Your task to perform on an android device: change notifications settings Image 0: 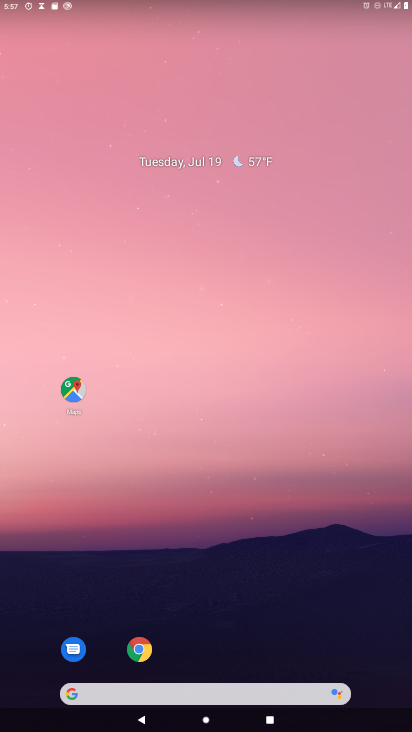
Step 0: drag from (225, 474) to (226, 201)
Your task to perform on an android device: change notifications settings Image 1: 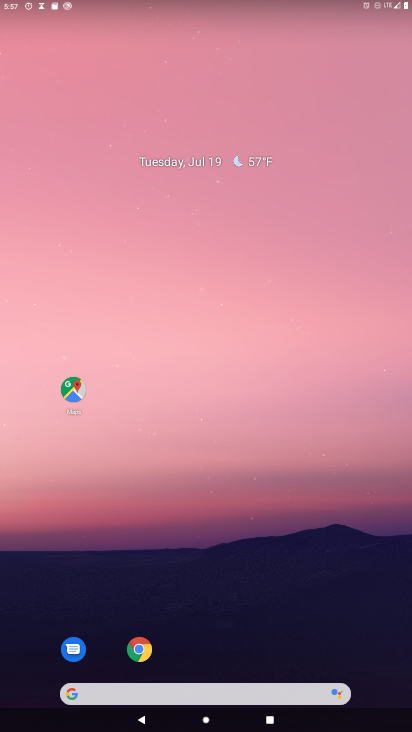
Step 1: drag from (212, 475) to (293, 103)
Your task to perform on an android device: change notifications settings Image 2: 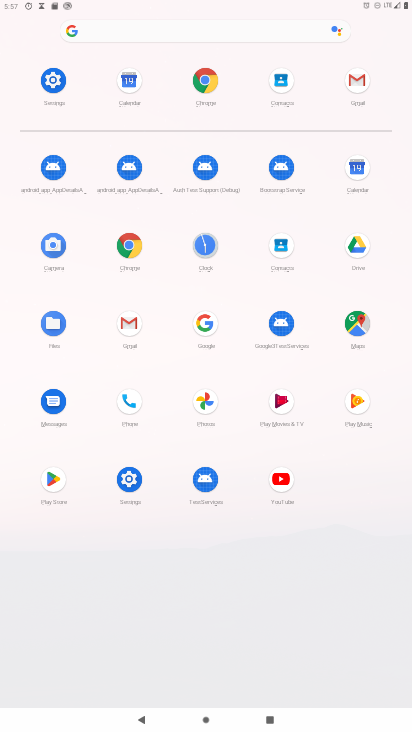
Step 2: click (45, 81)
Your task to perform on an android device: change notifications settings Image 3: 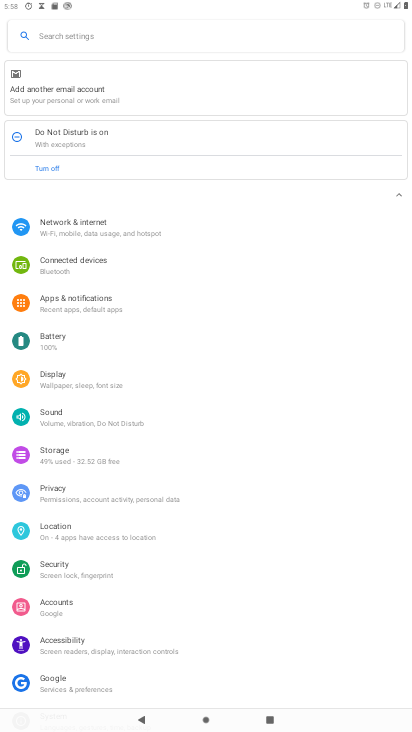
Step 3: click (49, 300)
Your task to perform on an android device: change notifications settings Image 4: 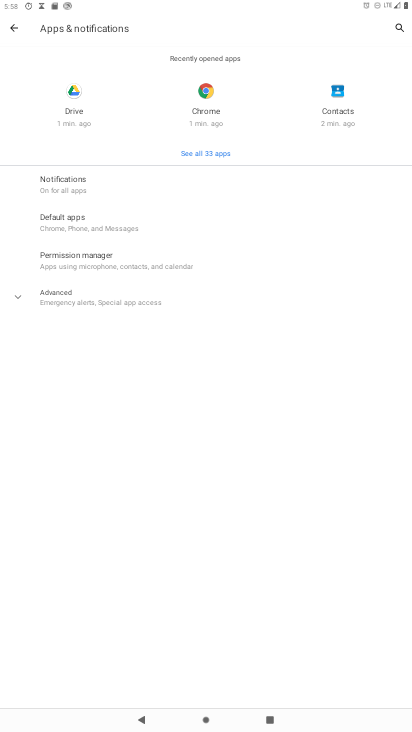
Step 4: click (73, 177)
Your task to perform on an android device: change notifications settings Image 5: 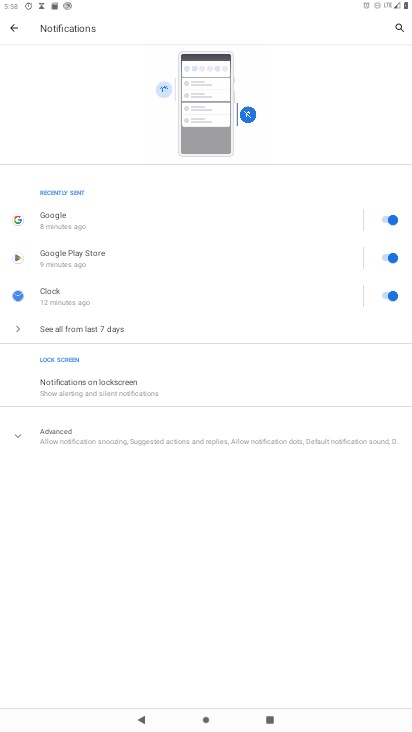
Step 5: click (111, 387)
Your task to perform on an android device: change notifications settings Image 6: 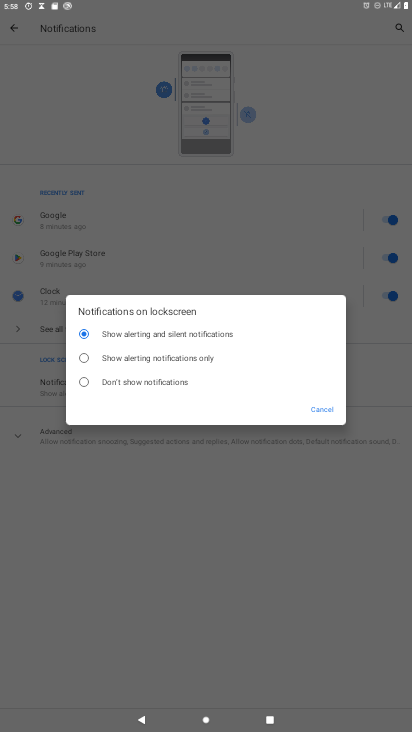
Step 6: click (82, 381)
Your task to perform on an android device: change notifications settings Image 7: 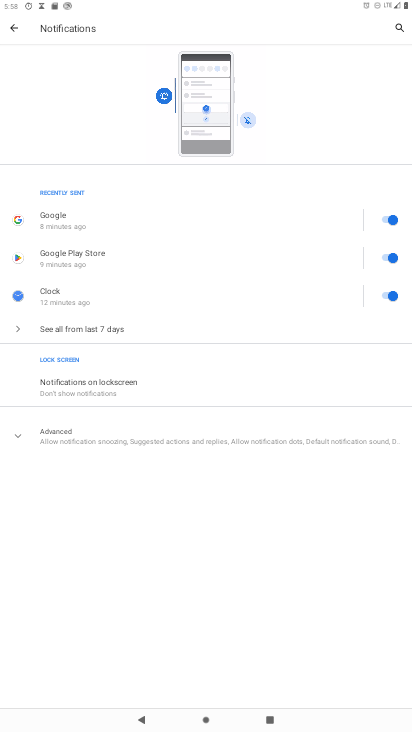
Step 7: task complete